Your task to perform on an android device: turn off picture-in-picture Image 0: 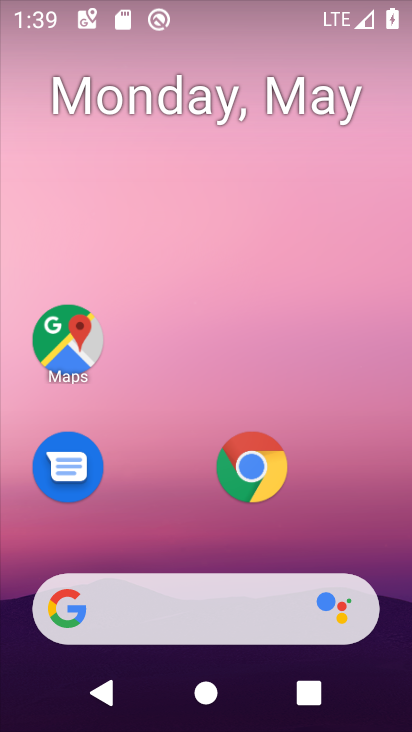
Step 0: drag from (211, 460) to (196, 10)
Your task to perform on an android device: turn off picture-in-picture Image 1: 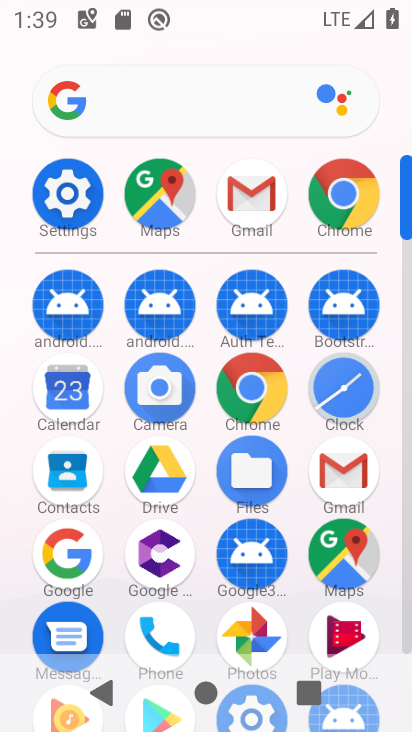
Step 1: click (56, 188)
Your task to perform on an android device: turn off picture-in-picture Image 2: 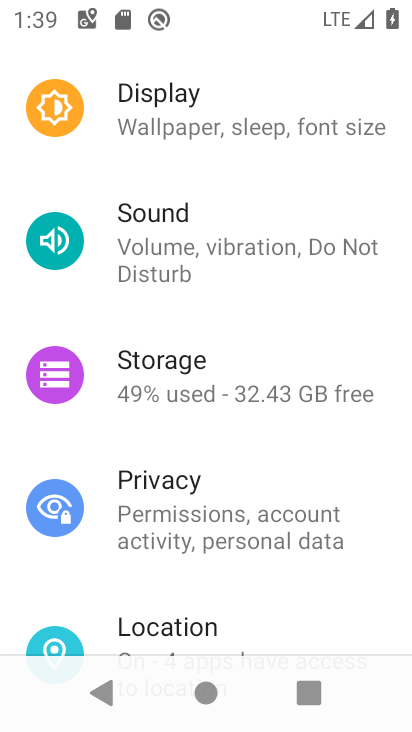
Step 2: drag from (204, 504) to (277, 72)
Your task to perform on an android device: turn off picture-in-picture Image 3: 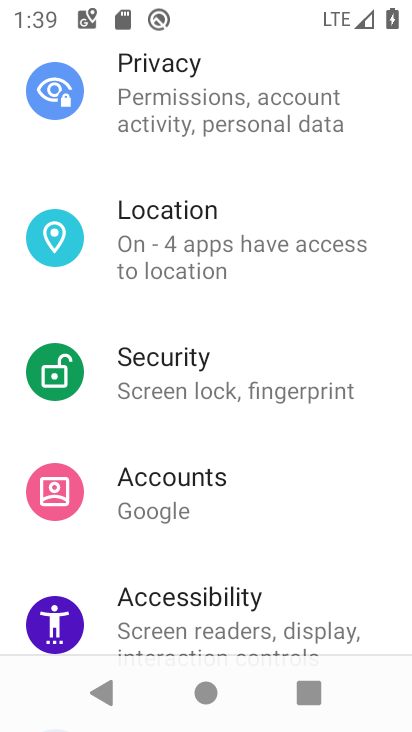
Step 3: drag from (221, 98) to (267, 697)
Your task to perform on an android device: turn off picture-in-picture Image 4: 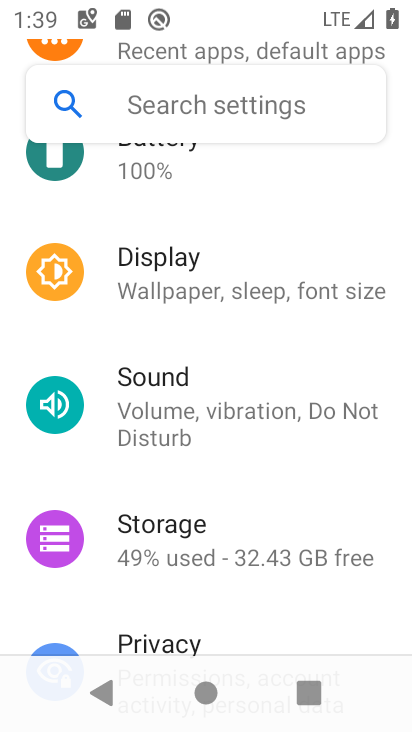
Step 4: drag from (191, 174) to (229, 606)
Your task to perform on an android device: turn off picture-in-picture Image 5: 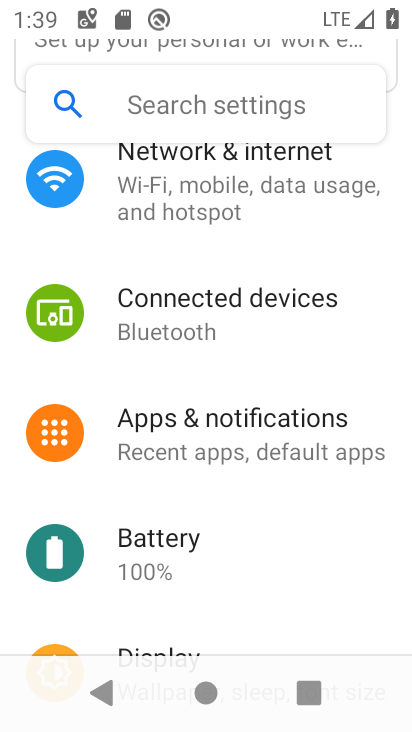
Step 5: drag from (278, 303) to (312, 611)
Your task to perform on an android device: turn off picture-in-picture Image 6: 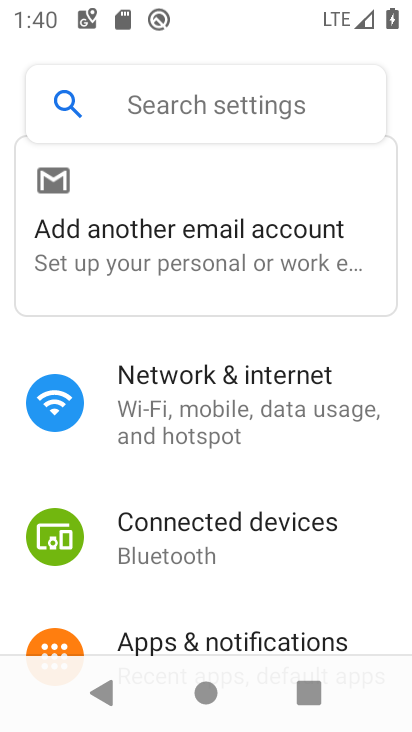
Step 6: drag from (234, 541) to (308, 236)
Your task to perform on an android device: turn off picture-in-picture Image 7: 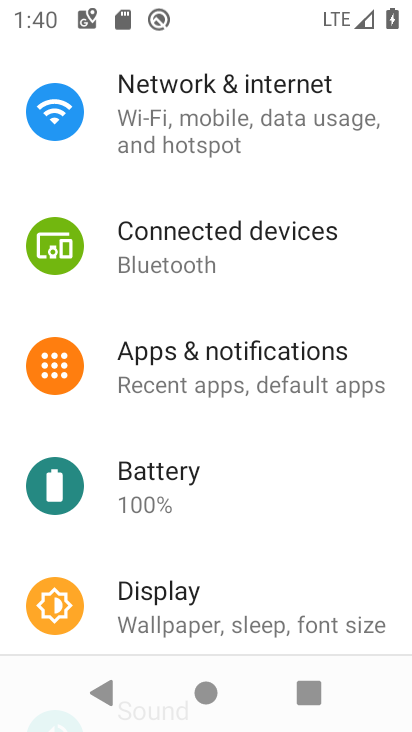
Step 7: click (234, 371)
Your task to perform on an android device: turn off picture-in-picture Image 8: 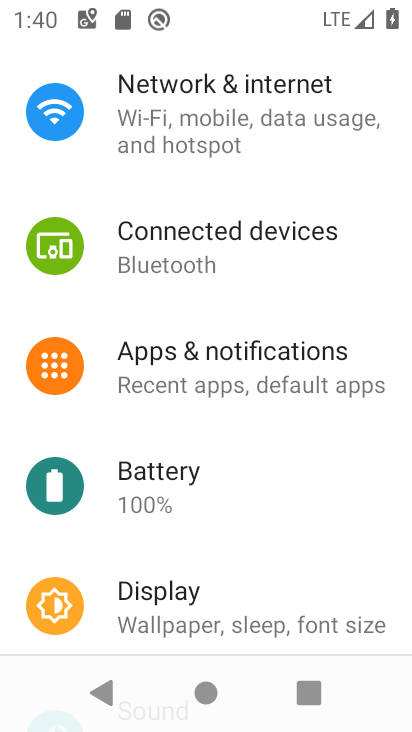
Step 8: drag from (223, 358) to (319, 18)
Your task to perform on an android device: turn off picture-in-picture Image 9: 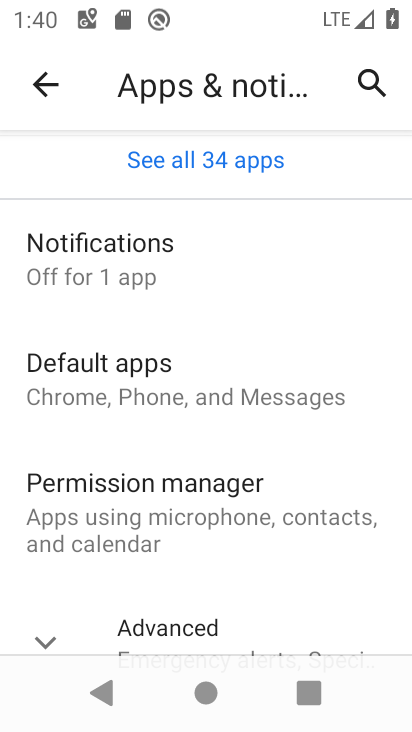
Step 9: click (148, 240)
Your task to perform on an android device: turn off picture-in-picture Image 10: 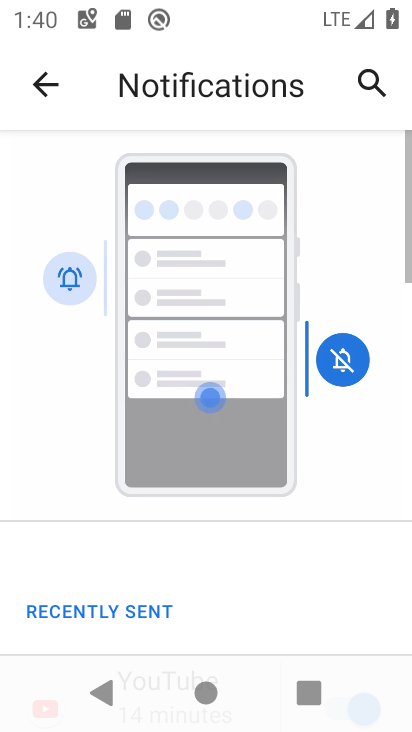
Step 10: drag from (201, 437) to (264, 112)
Your task to perform on an android device: turn off picture-in-picture Image 11: 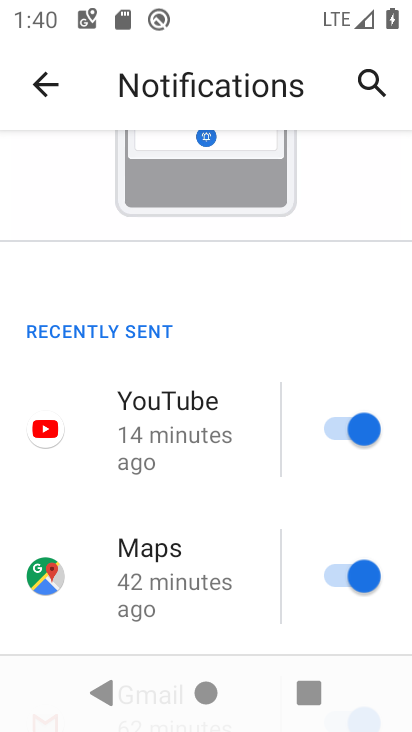
Step 11: drag from (203, 534) to (314, 158)
Your task to perform on an android device: turn off picture-in-picture Image 12: 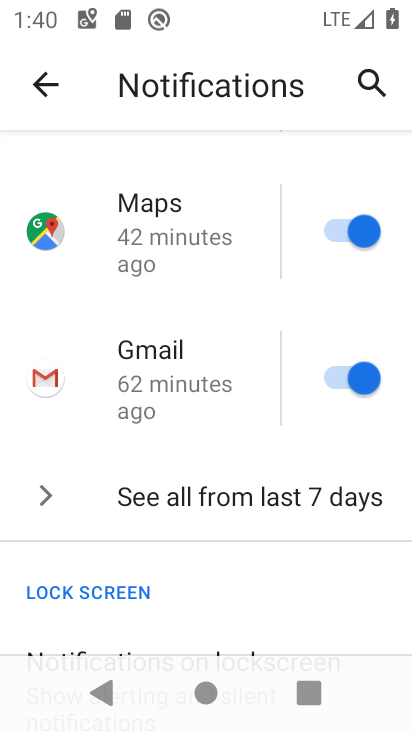
Step 12: drag from (215, 590) to (294, 213)
Your task to perform on an android device: turn off picture-in-picture Image 13: 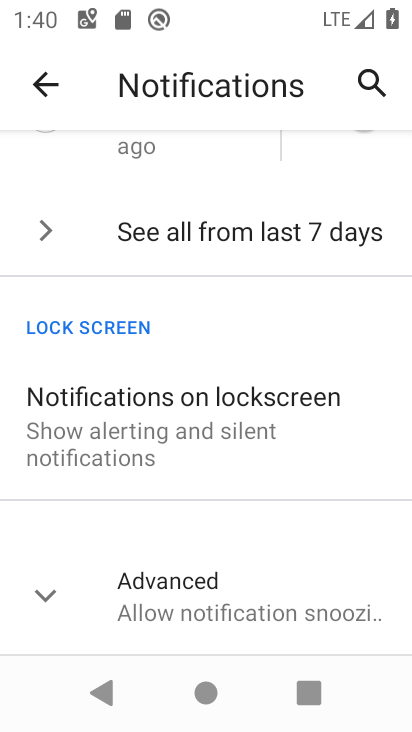
Step 13: drag from (204, 606) to (266, 224)
Your task to perform on an android device: turn off picture-in-picture Image 14: 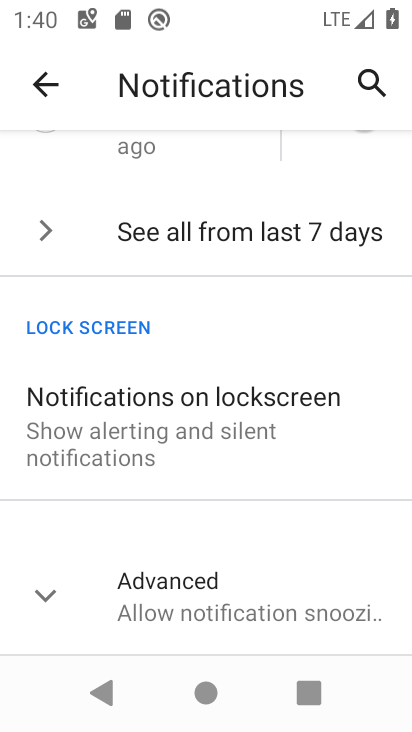
Step 14: drag from (229, 554) to (287, 96)
Your task to perform on an android device: turn off picture-in-picture Image 15: 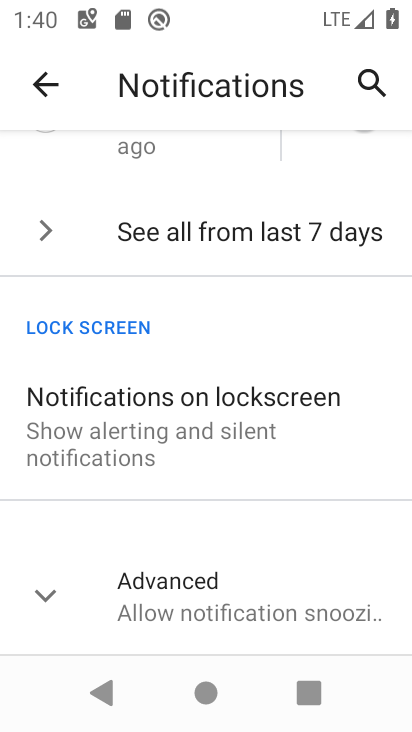
Step 15: click (173, 577)
Your task to perform on an android device: turn off picture-in-picture Image 16: 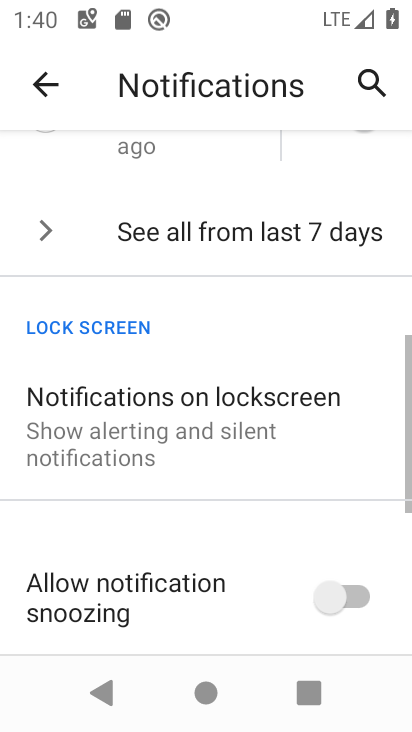
Step 16: drag from (181, 560) to (335, 35)
Your task to perform on an android device: turn off picture-in-picture Image 17: 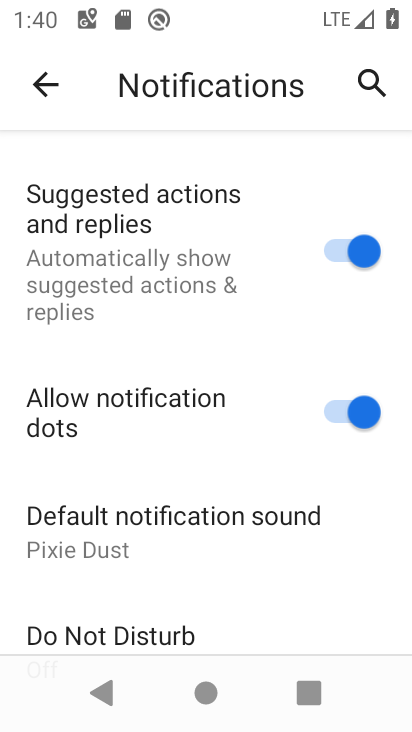
Step 17: click (66, 85)
Your task to perform on an android device: turn off picture-in-picture Image 18: 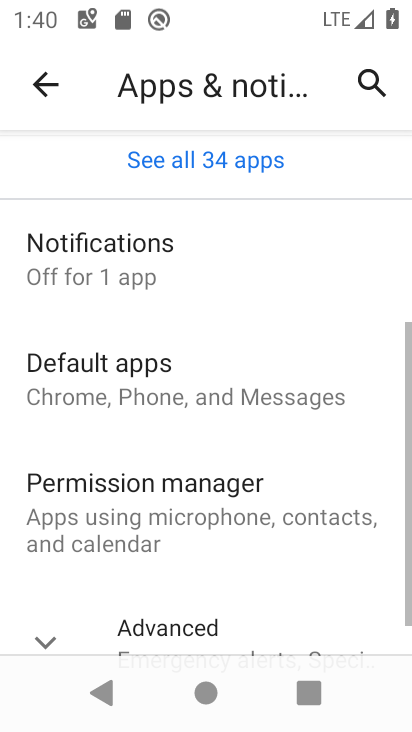
Step 18: drag from (228, 511) to (290, 95)
Your task to perform on an android device: turn off picture-in-picture Image 19: 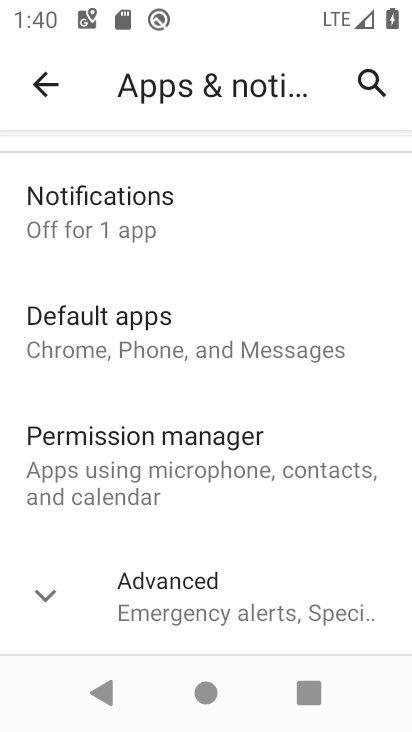
Step 19: click (185, 587)
Your task to perform on an android device: turn off picture-in-picture Image 20: 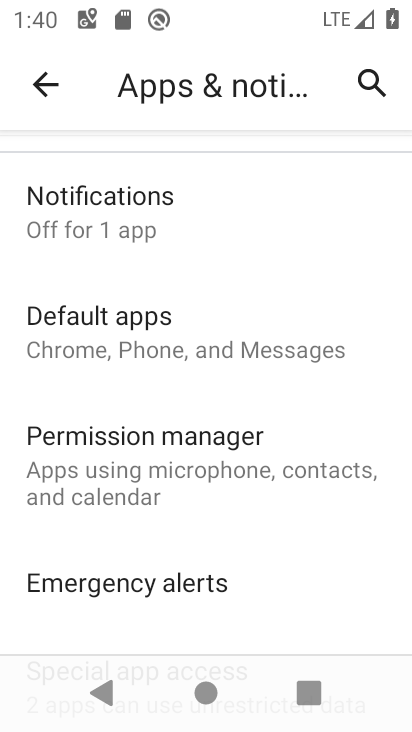
Step 20: drag from (230, 510) to (251, 171)
Your task to perform on an android device: turn off picture-in-picture Image 21: 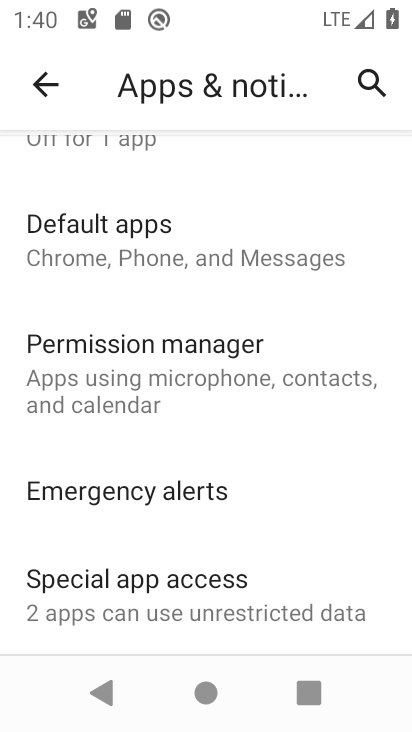
Step 21: click (155, 599)
Your task to perform on an android device: turn off picture-in-picture Image 22: 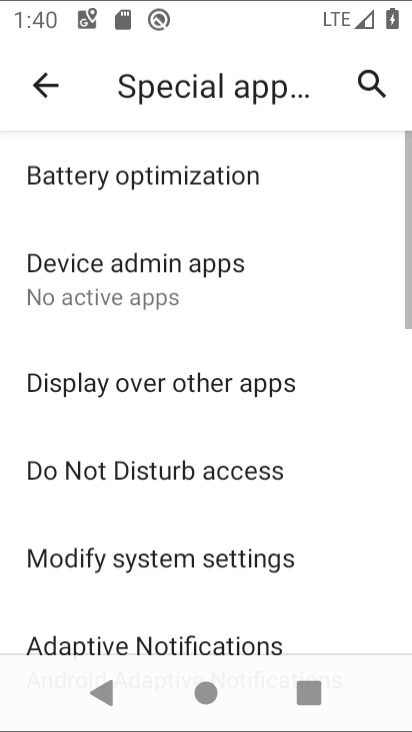
Step 22: drag from (154, 576) to (268, 170)
Your task to perform on an android device: turn off picture-in-picture Image 23: 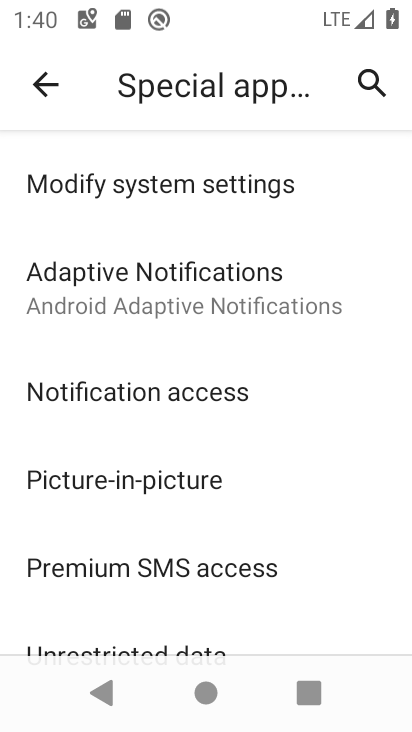
Step 23: click (188, 480)
Your task to perform on an android device: turn off picture-in-picture Image 24: 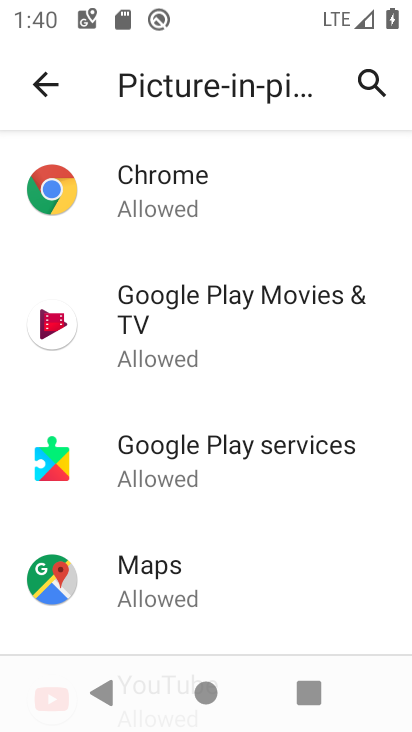
Step 24: task complete